Your task to perform on an android device: change timer sound Image 0: 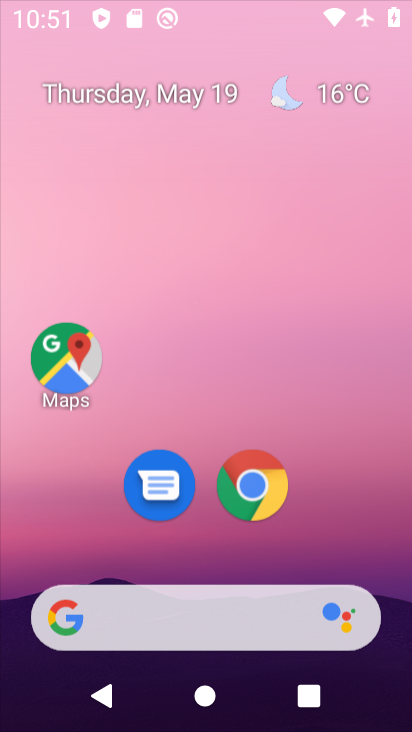
Step 0: drag from (338, 532) to (346, 228)
Your task to perform on an android device: change timer sound Image 1: 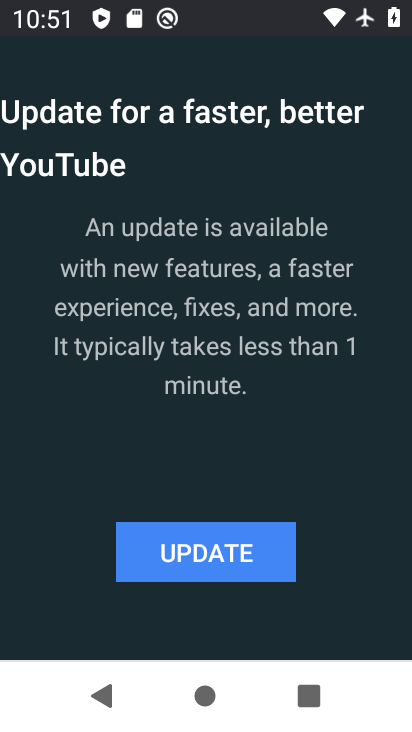
Step 1: press back button
Your task to perform on an android device: change timer sound Image 2: 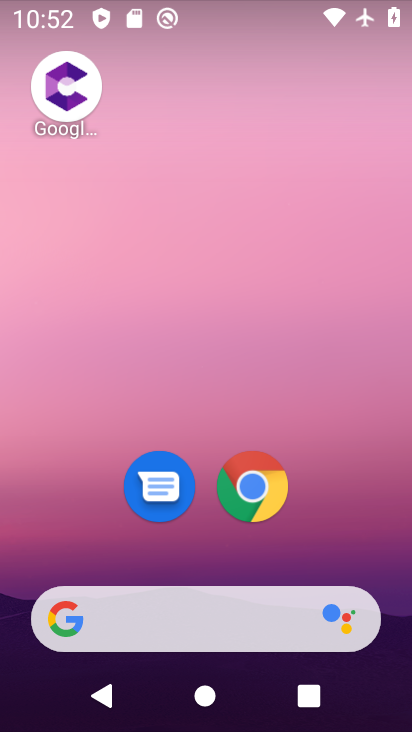
Step 2: drag from (310, 530) to (336, 113)
Your task to perform on an android device: change timer sound Image 3: 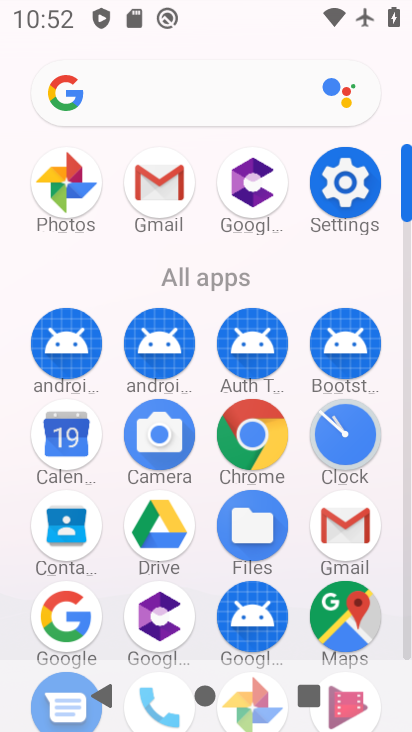
Step 3: click (340, 441)
Your task to perform on an android device: change timer sound Image 4: 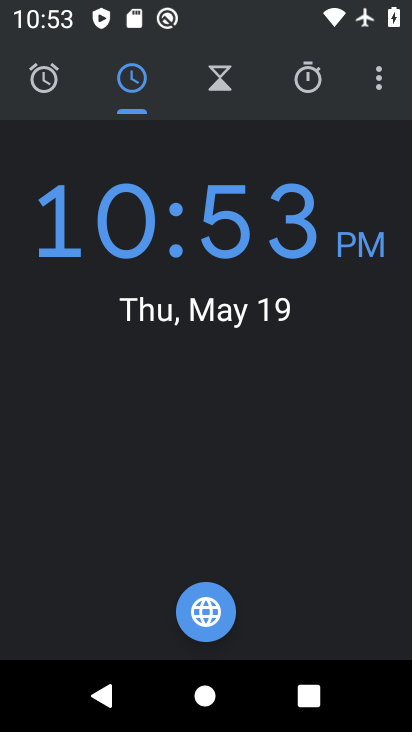
Step 4: click (372, 64)
Your task to perform on an android device: change timer sound Image 5: 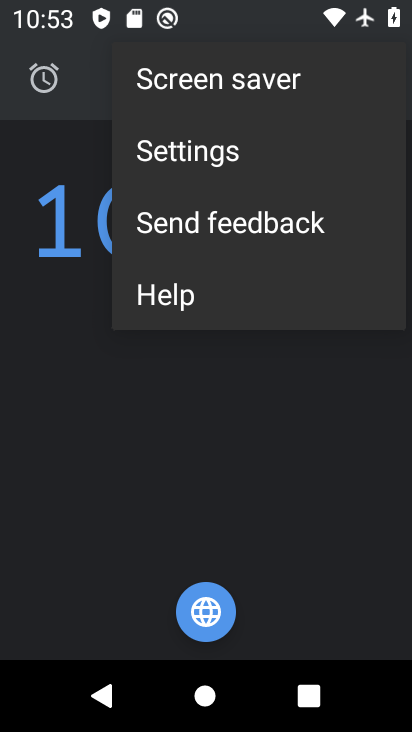
Step 5: drag from (281, 192) to (293, 152)
Your task to perform on an android device: change timer sound Image 6: 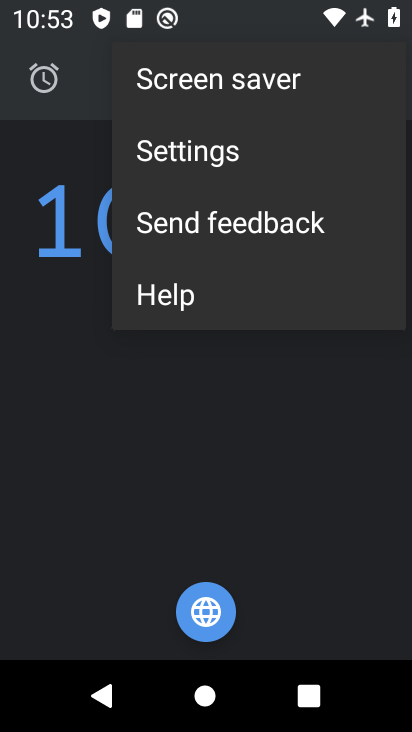
Step 6: click (293, 152)
Your task to perform on an android device: change timer sound Image 7: 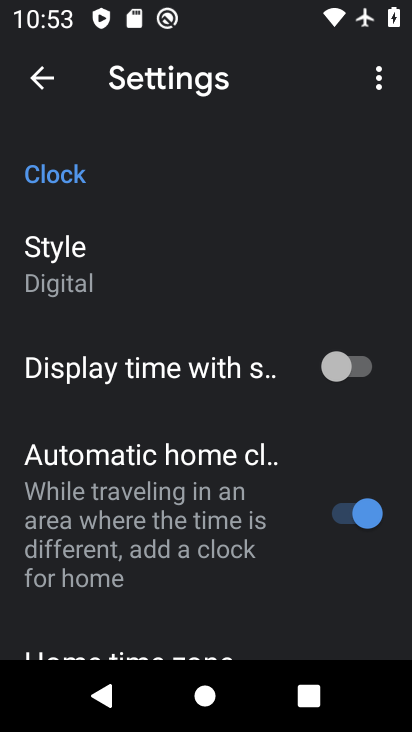
Step 7: drag from (241, 493) to (241, 306)
Your task to perform on an android device: change timer sound Image 8: 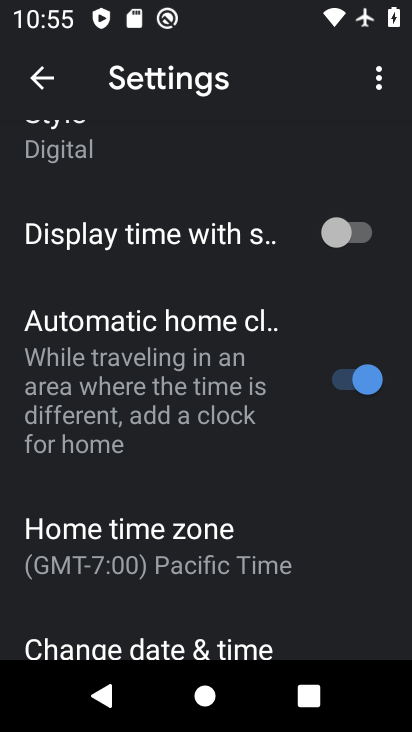
Step 8: drag from (237, 528) to (247, 240)
Your task to perform on an android device: change timer sound Image 9: 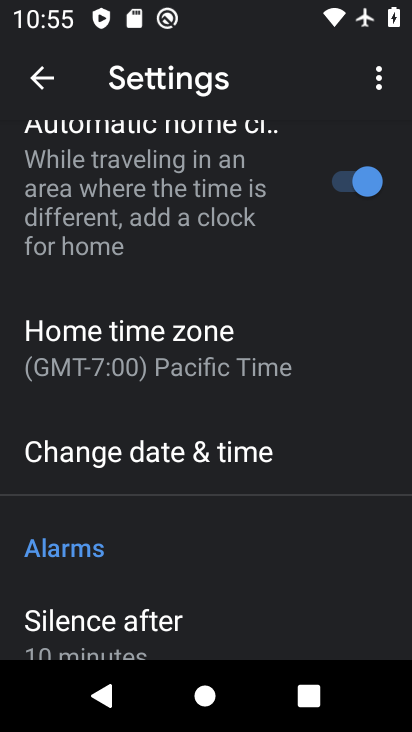
Step 9: drag from (165, 482) to (193, 189)
Your task to perform on an android device: change timer sound Image 10: 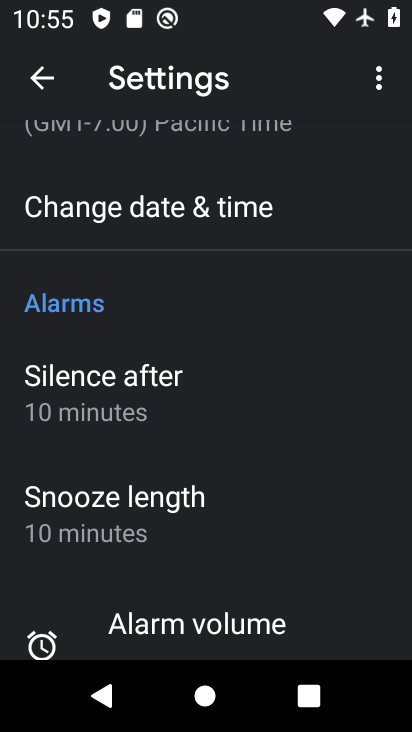
Step 10: drag from (205, 526) to (219, 331)
Your task to perform on an android device: change timer sound Image 11: 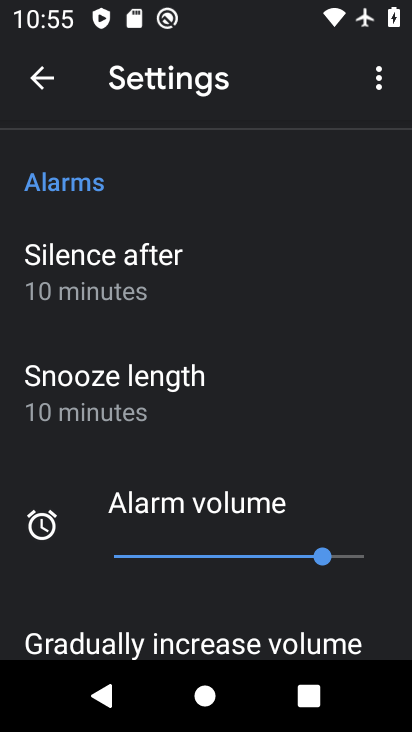
Step 11: drag from (217, 554) to (284, 176)
Your task to perform on an android device: change timer sound Image 12: 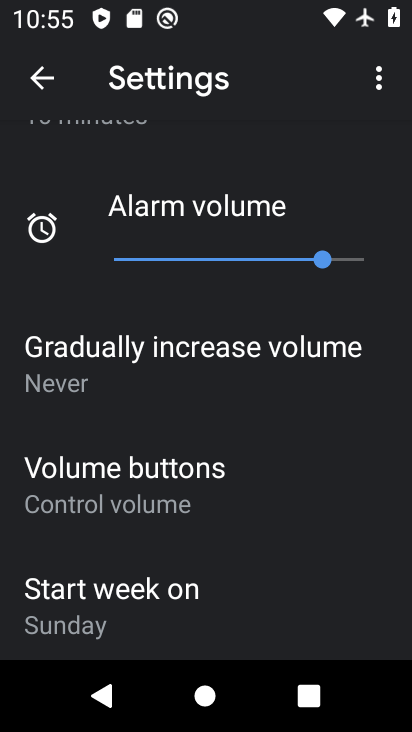
Step 12: drag from (251, 600) to (282, 196)
Your task to perform on an android device: change timer sound Image 13: 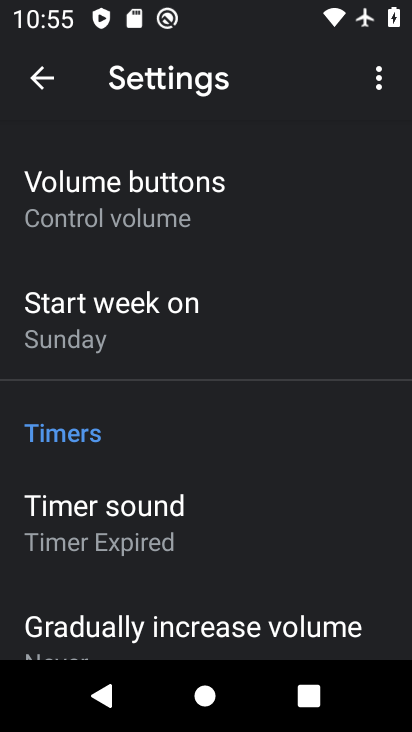
Step 13: click (231, 541)
Your task to perform on an android device: change timer sound Image 14: 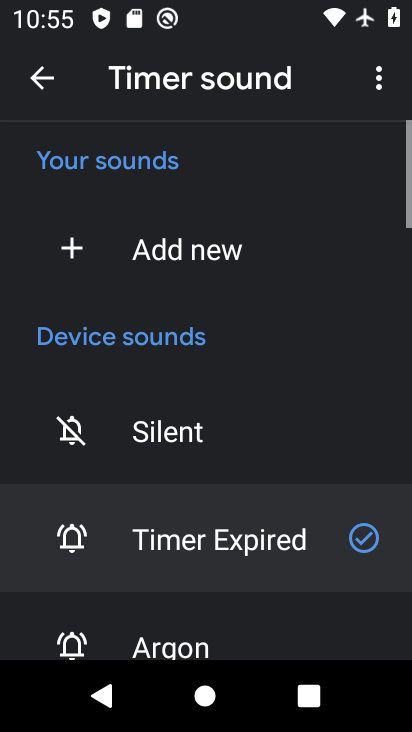
Step 14: click (231, 516)
Your task to perform on an android device: change timer sound Image 15: 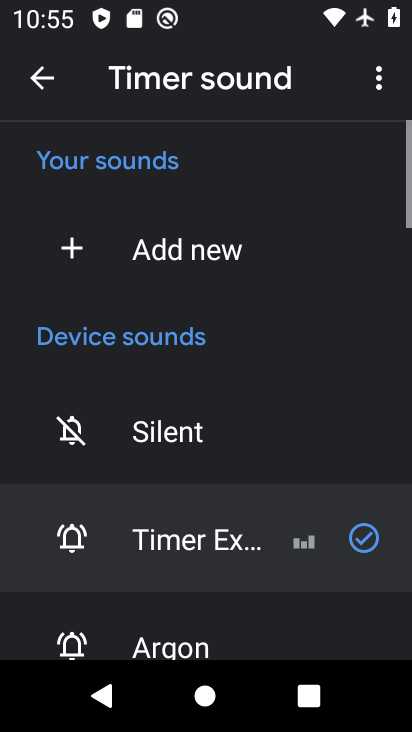
Step 15: click (229, 460)
Your task to perform on an android device: change timer sound Image 16: 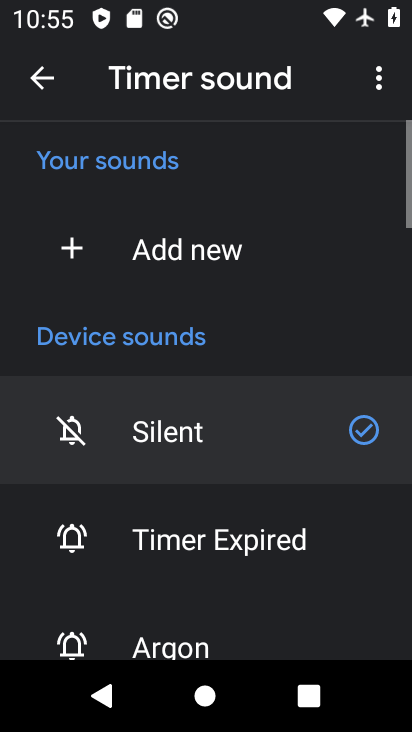
Step 16: task complete